Your task to perform on an android device: find snoozed emails in the gmail app Image 0: 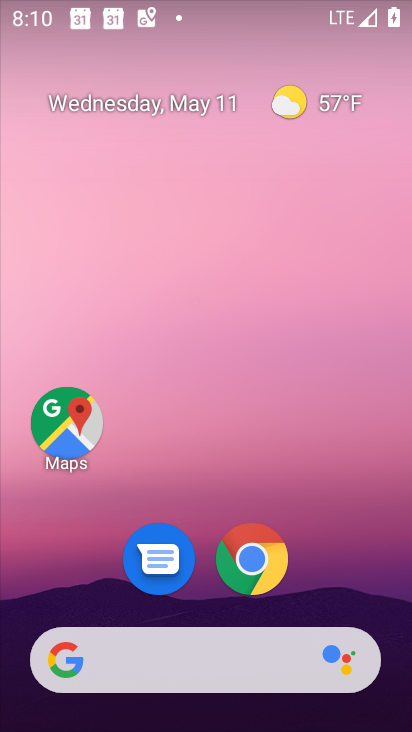
Step 0: drag from (345, 593) to (367, 83)
Your task to perform on an android device: find snoozed emails in the gmail app Image 1: 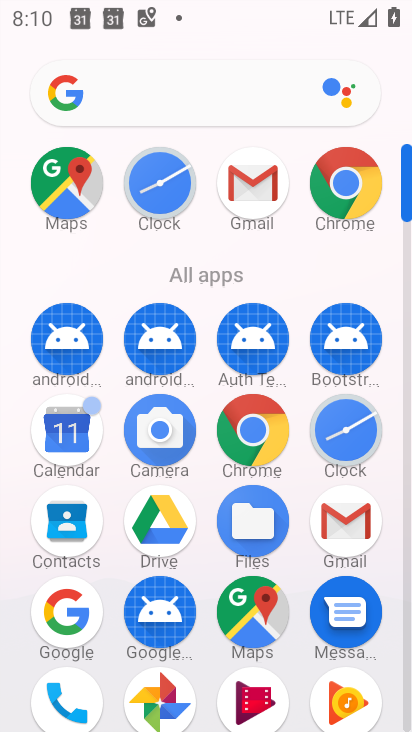
Step 1: click (337, 515)
Your task to perform on an android device: find snoozed emails in the gmail app Image 2: 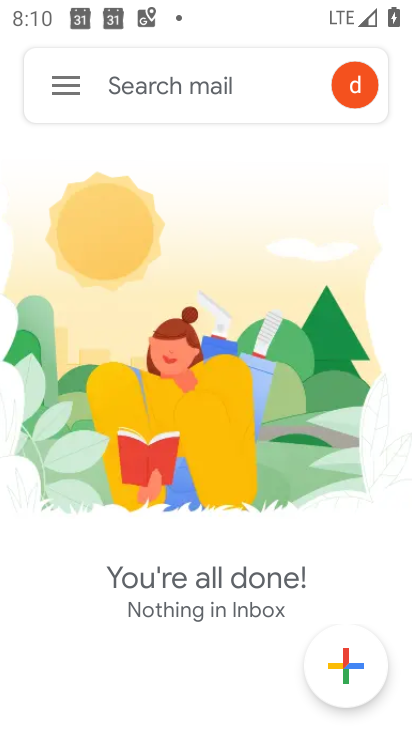
Step 2: click (56, 84)
Your task to perform on an android device: find snoozed emails in the gmail app Image 3: 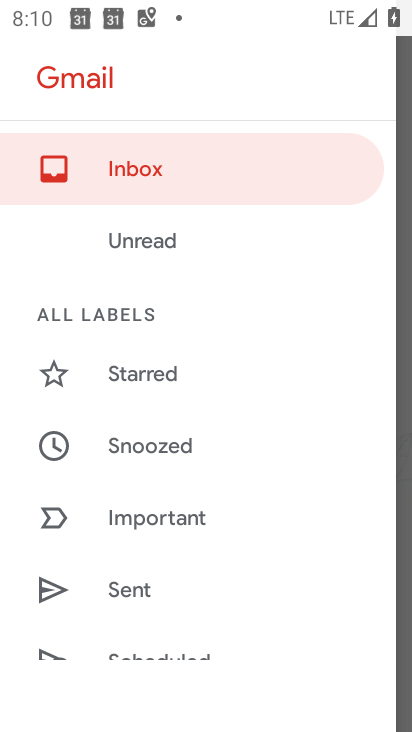
Step 3: click (121, 434)
Your task to perform on an android device: find snoozed emails in the gmail app Image 4: 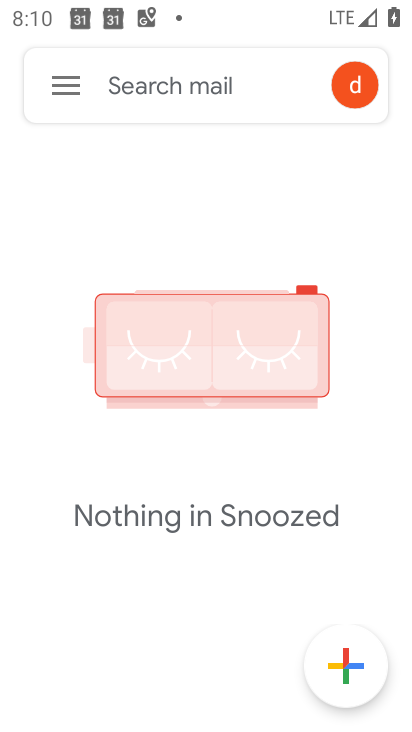
Step 4: task complete